Your task to perform on an android device: open a bookmark in the chrome app Image 0: 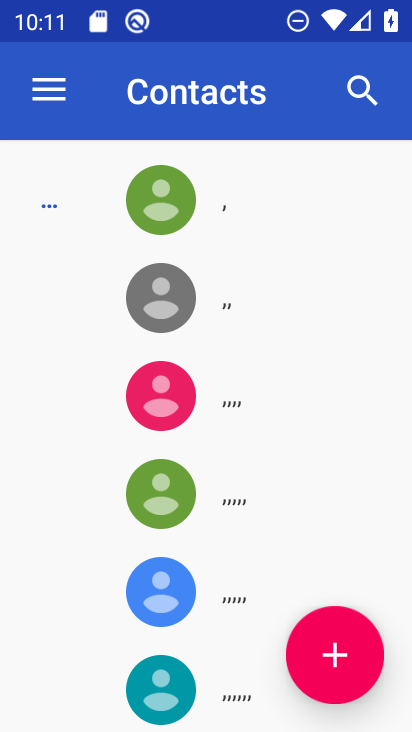
Step 0: press home button
Your task to perform on an android device: open a bookmark in the chrome app Image 1: 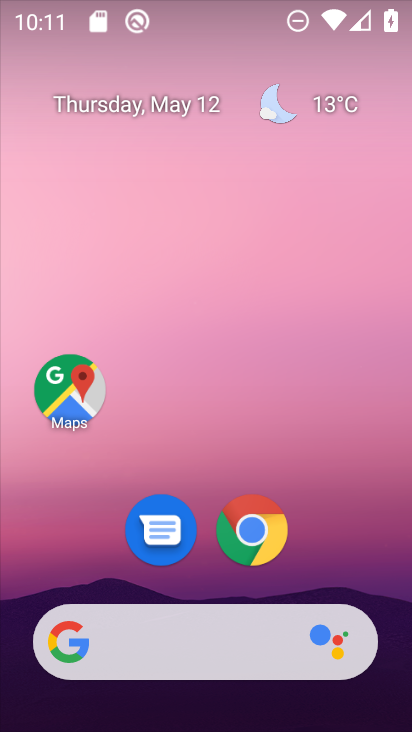
Step 1: click (270, 519)
Your task to perform on an android device: open a bookmark in the chrome app Image 2: 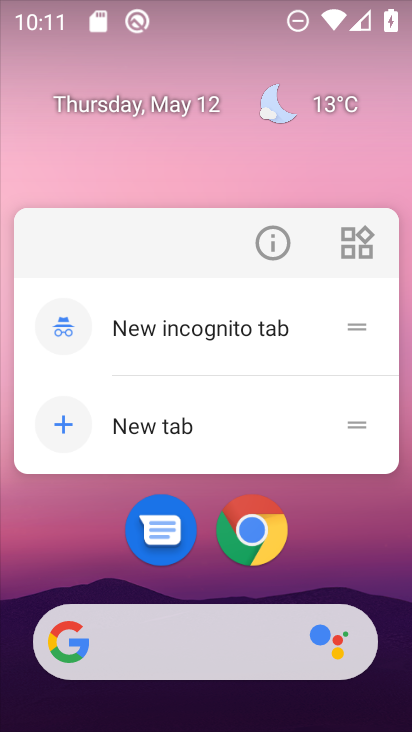
Step 2: click (269, 522)
Your task to perform on an android device: open a bookmark in the chrome app Image 3: 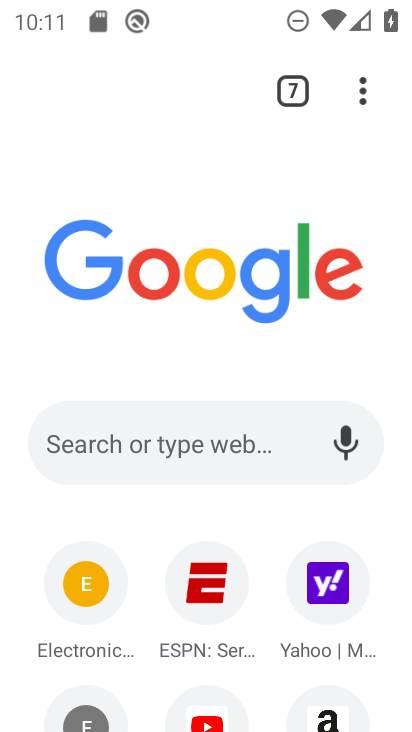
Step 3: click (269, 546)
Your task to perform on an android device: open a bookmark in the chrome app Image 4: 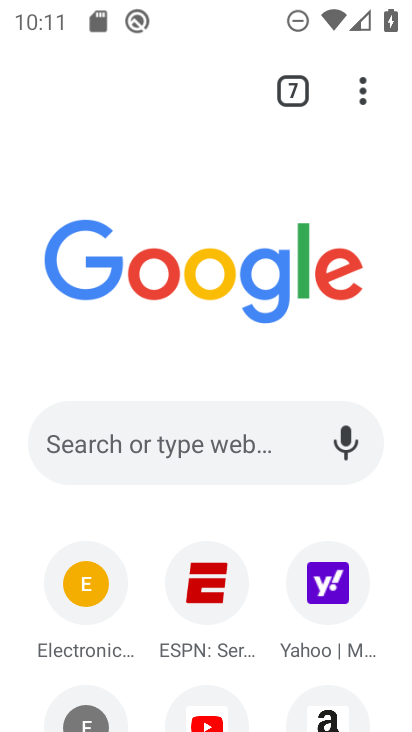
Step 4: click (371, 78)
Your task to perform on an android device: open a bookmark in the chrome app Image 5: 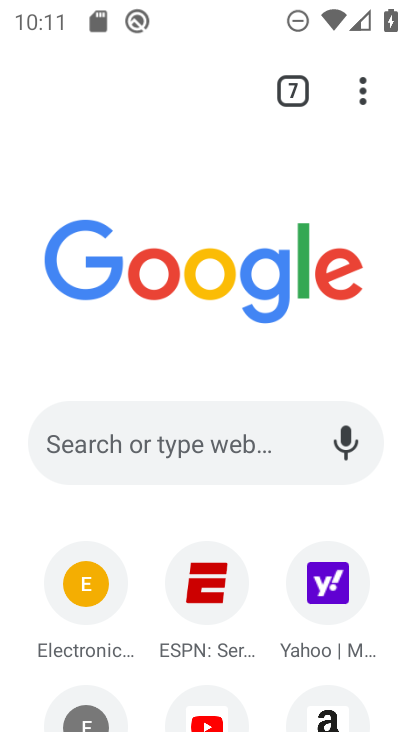
Step 5: click (358, 98)
Your task to perform on an android device: open a bookmark in the chrome app Image 6: 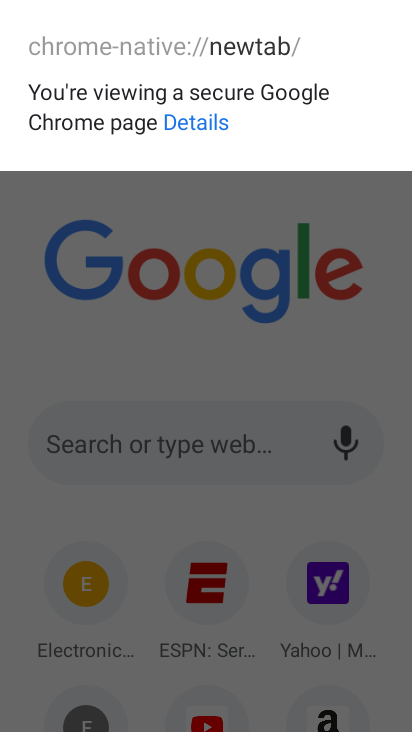
Step 6: press back button
Your task to perform on an android device: open a bookmark in the chrome app Image 7: 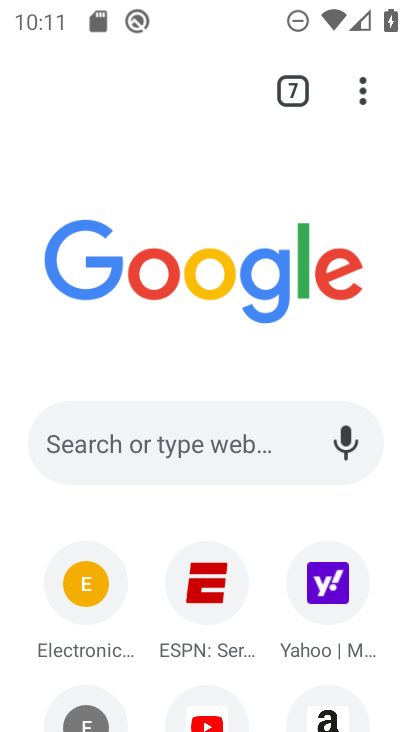
Step 7: click (362, 98)
Your task to perform on an android device: open a bookmark in the chrome app Image 8: 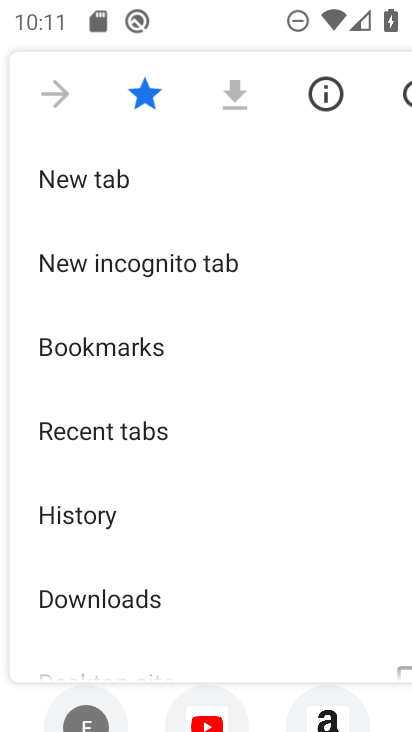
Step 8: click (187, 337)
Your task to perform on an android device: open a bookmark in the chrome app Image 9: 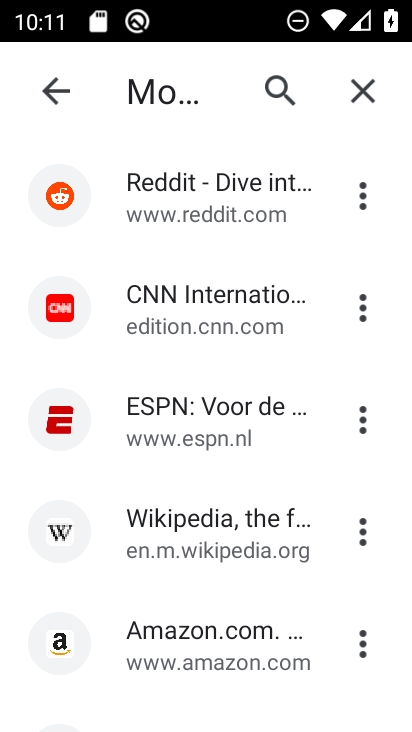
Step 9: task complete